Your task to perform on an android device: install app "Flipkart Online Shopping App" Image 0: 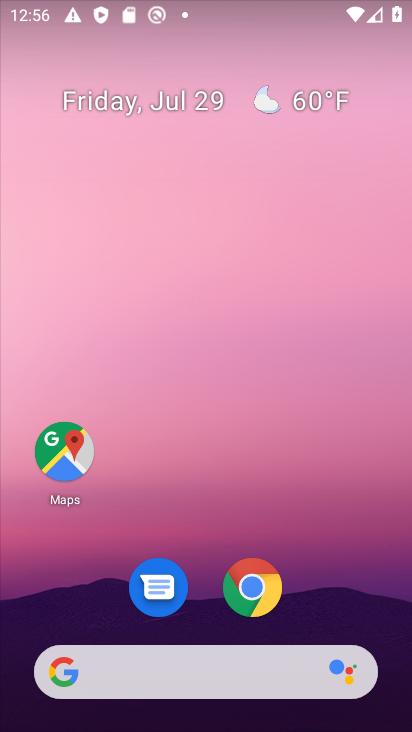
Step 0: drag from (149, 525) to (239, 179)
Your task to perform on an android device: install app "Flipkart Online Shopping App" Image 1: 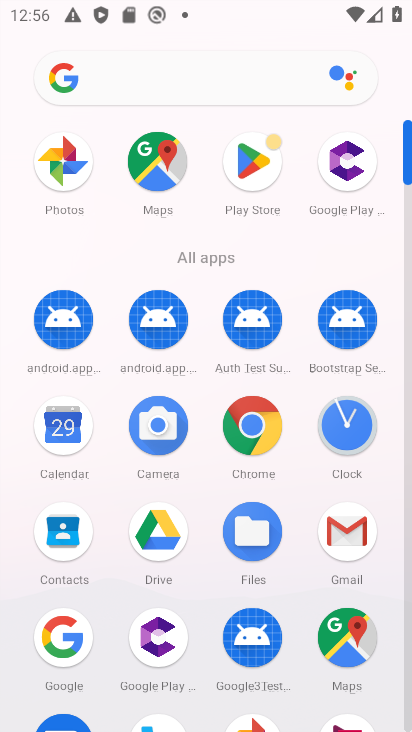
Step 1: click (252, 179)
Your task to perform on an android device: install app "Flipkart Online Shopping App" Image 2: 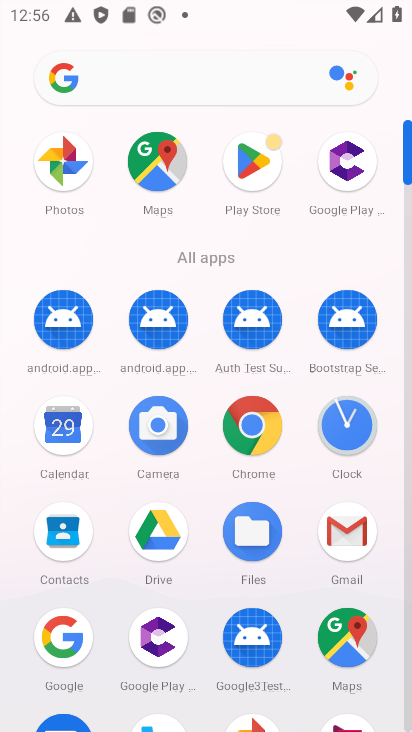
Step 2: click (252, 179)
Your task to perform on an android device: install app "Flipkart Online Shopping App" Image 3: 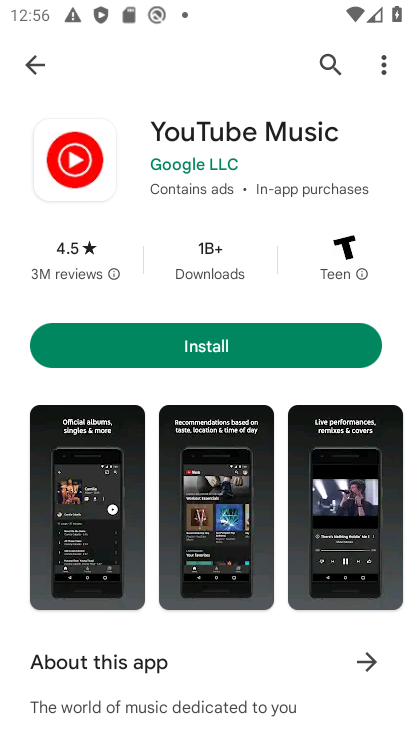
Step 3: click (331, 60)
Your task to perform on an android device: install app "Flipkart Online Shopping App" Image 4: 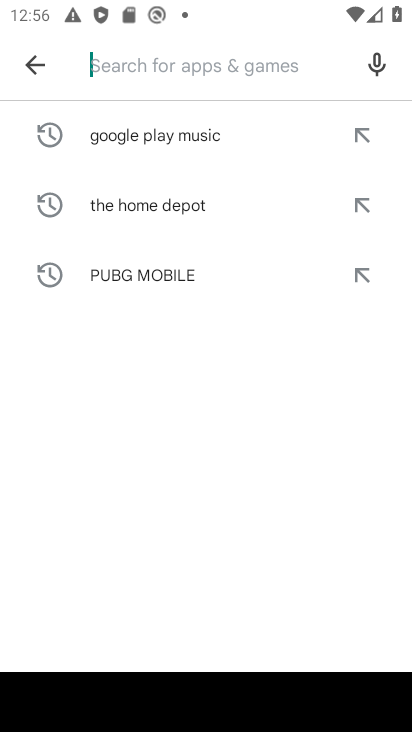
Step 4: type "Flipkart Online Shopping App"
Your task to perform on an android device: install app "Flipkart Online Shopping App" Image 5: 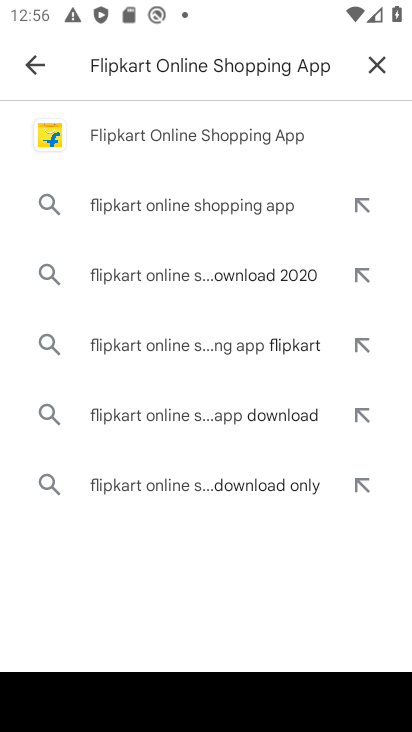
Step 5: click (124, 164)
Your task to perform on an android device: install app "Flipkart Online Shopping App" Image 6: 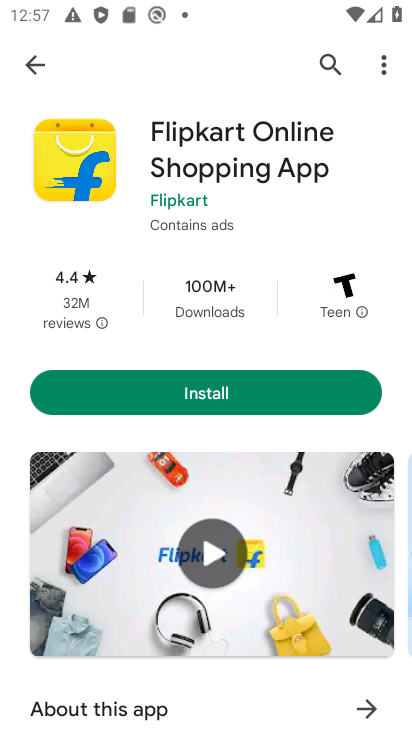
Step 6: click (167, 404)
Your task to perform on an android device: install app "Flipkart Online Shopping App" Image 7: 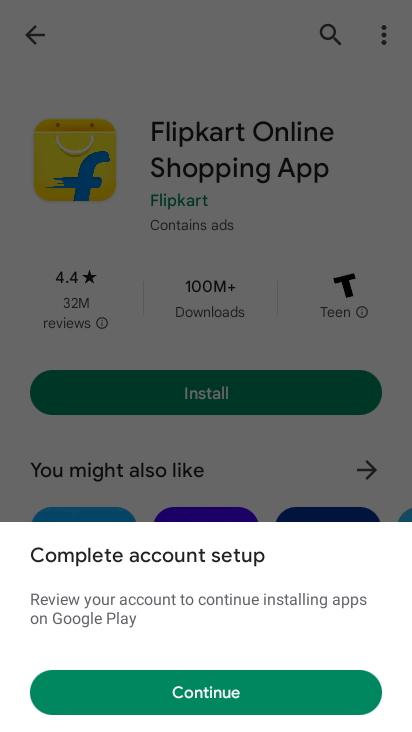
Step 7: click (162, 724)
Your task to perform on an android device: install app "Flipkart Online Shopping App" Image 8: 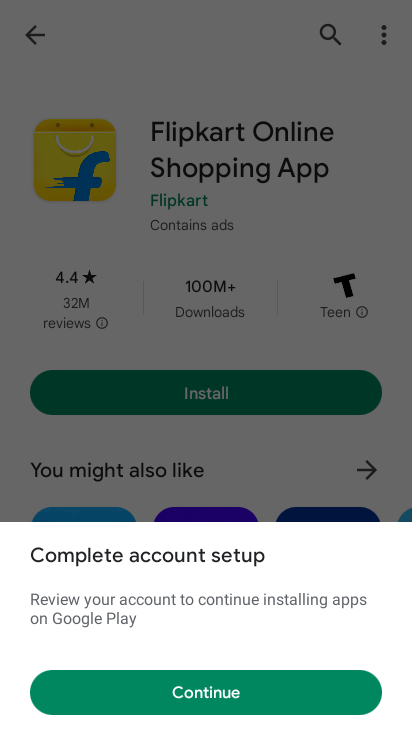
Step 8: click (202, 700)
Your task to perform on an android device: install app "Flipkart Online Shopping App" Image 9: 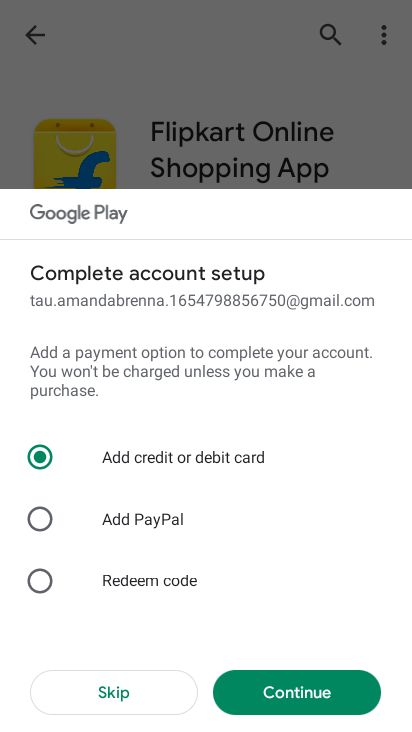
Step 9: click (123, 696)
Your task to perform on an android device: install app "Flipkart Online Shopping App" Image 10: 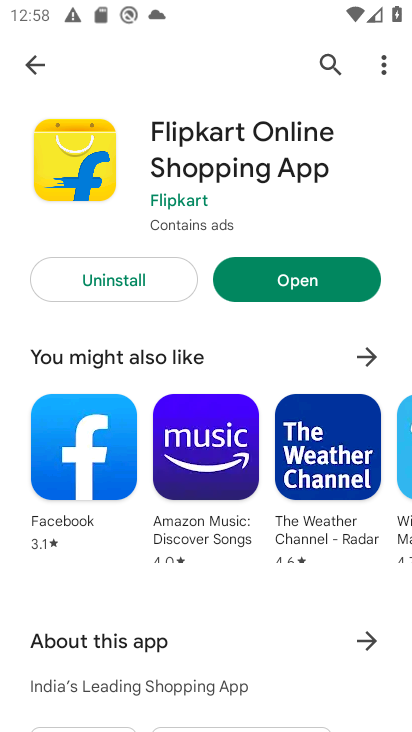
Step 10: task complete